Your task to perform on an android device: Show me the alarms in the clock app Image 0: 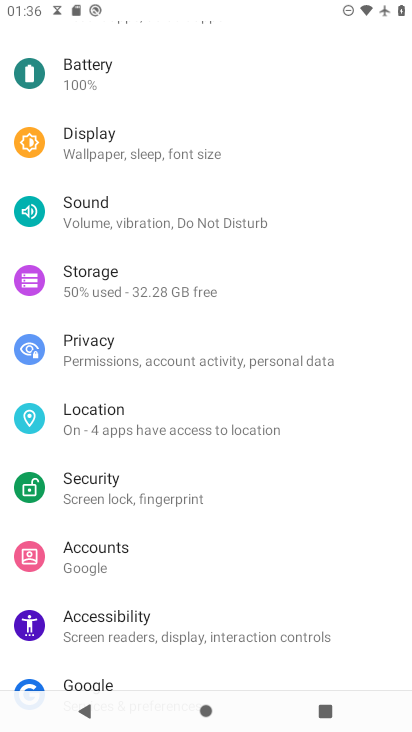
Step 0: press home button
Your task to perform on an android device: Show me the alarms in the clock app Image 1: 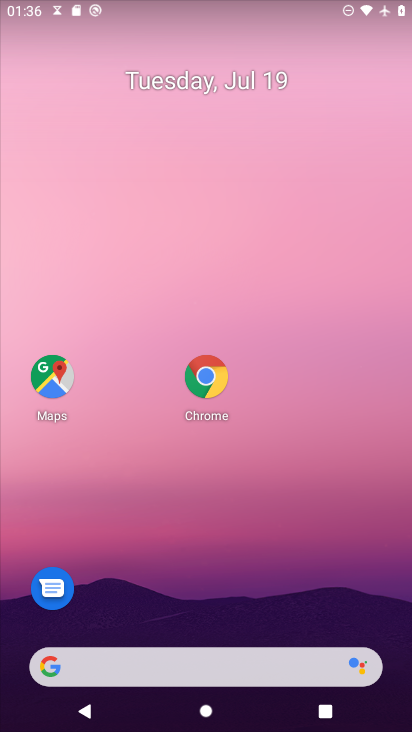
Step 1: drag from (275, 604) to (280, 60)
Your task to perform on an android device: Show me the alarms in the clock app Image 2: 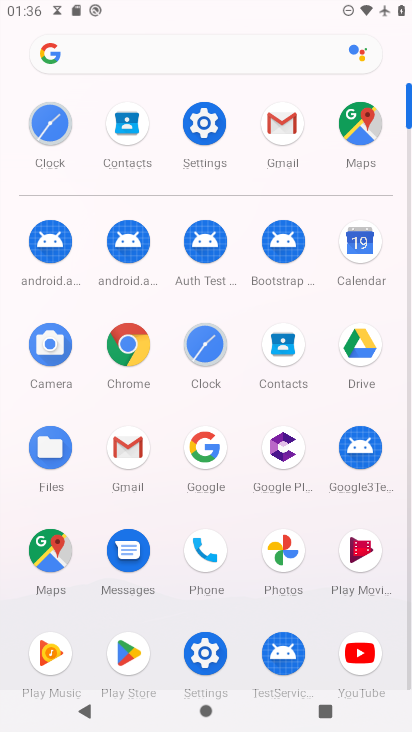
Step 2: click (43, 135)
Your task to perform on an android device: Show me the alarms in the clock app Image 3: 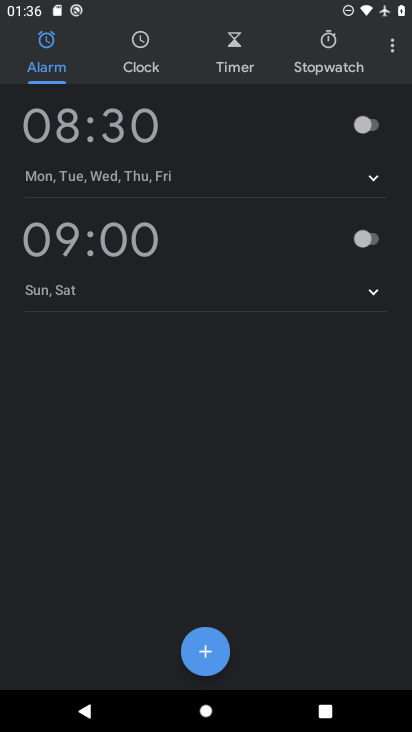
Step 3: task complete